Your task to perform on an android device: Go to battery settings Image 0: 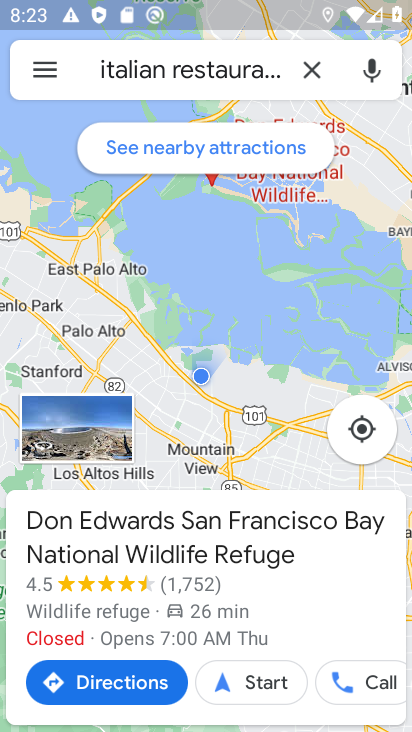
Step 0: press back button
Your task to perform on an android device: Go to battery settings Image 1: 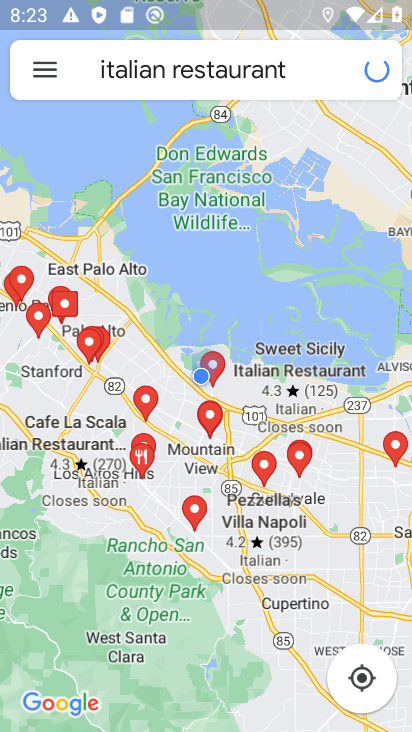
Step 1: press home button
Your task to perform on an android device: Go to battery settings Image 2: 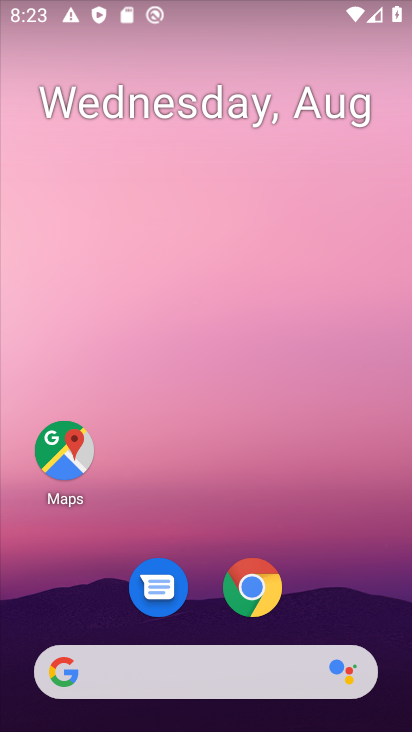
Step 2: drag from (223, 537) to (150, 57)
Your task to perform on an android device: Go to battery settings Image 3: 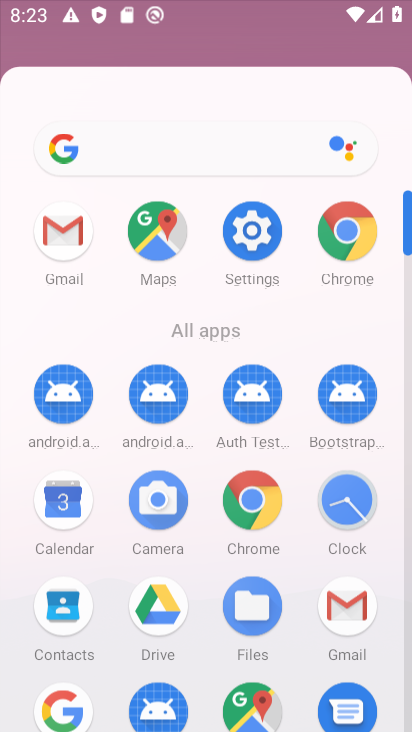
Step 3: drag from (191, 324) to (145, 3)
Your task to perform on an android device: Go to battery settings Image 4: 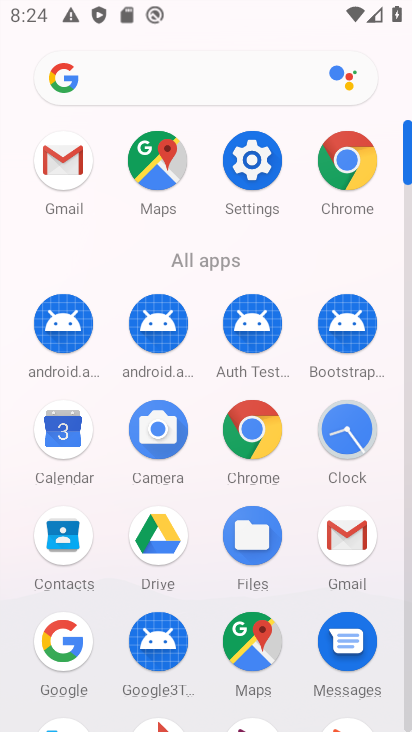
Step 4: click (247, 170)
Your task to perform on an android device: Go to battery settings Image 5: 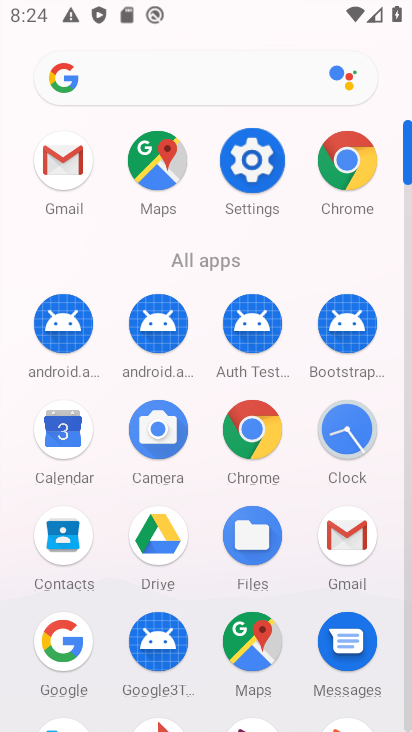
Step 5: click (247, 170)
Your task to perform on an android device: Go to battery settings Image 6: 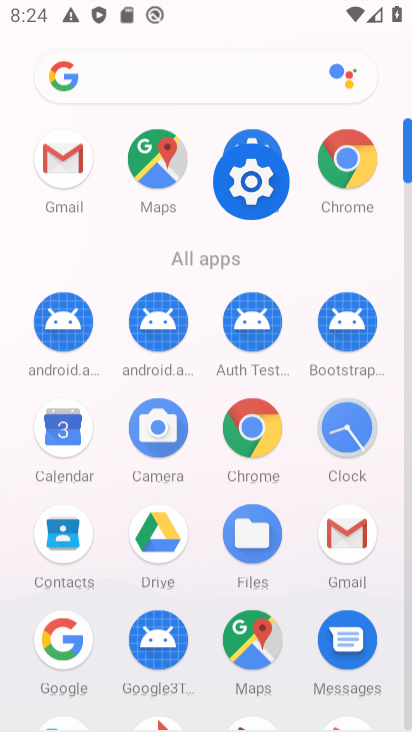
Step 6: click (245, 170)
Your task to perform on an android device: Go to battery settings Image 7: 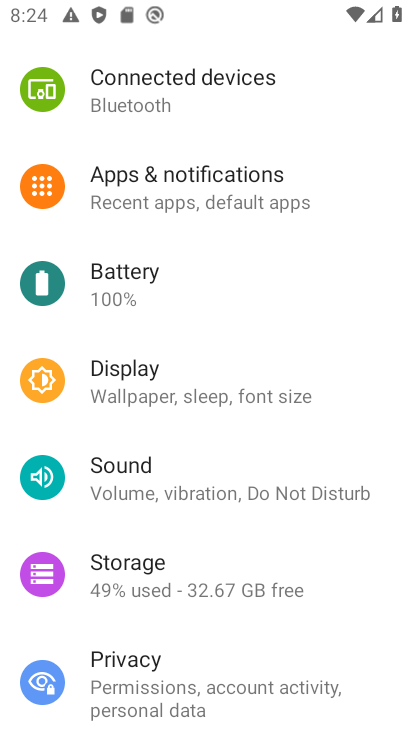
Step 7: click (129, 274)
Your task to perform on an android device: Go to battery settings Image 8: 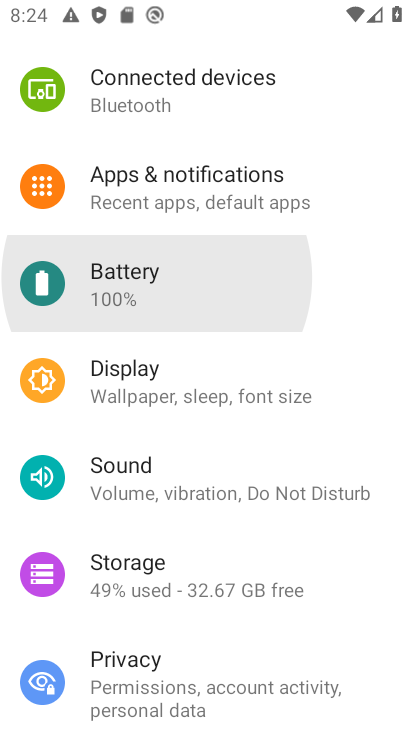
Step 8: click (128, 276)
Your task to perform on an android device: Go to battery settings Image 9: 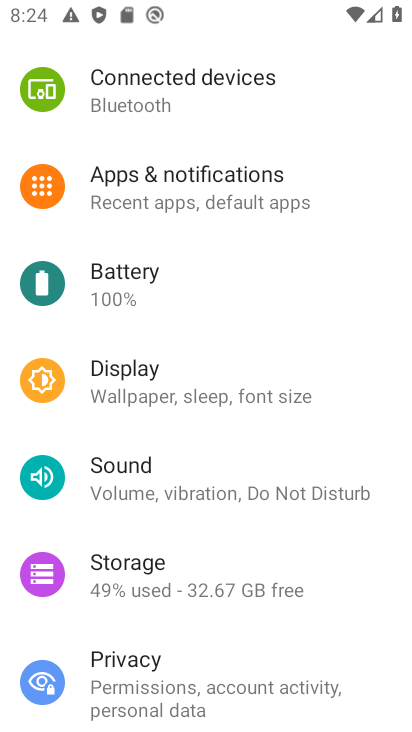
Step 9: click (128, 277)
Your task to perform on an android device: Go to battery settings Image 10: 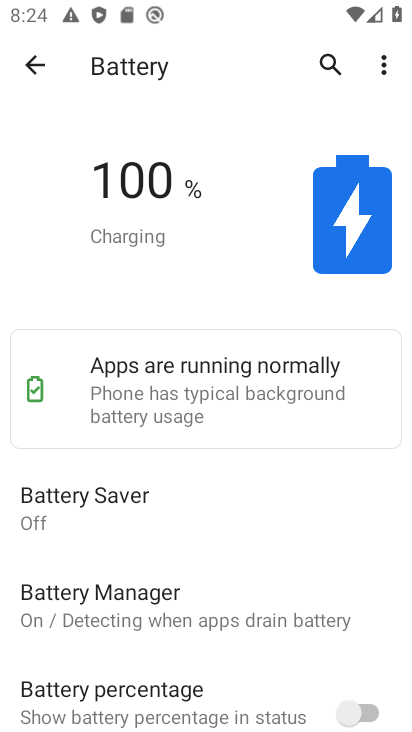
Step 10: task complete